Your task to perform on an android device: Go to privacy settings Image 0: 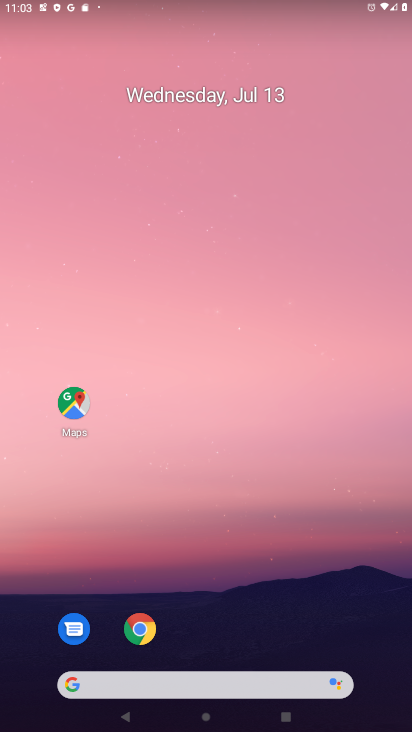
Step 0: drag from (261, 608) to (286, 158)
Your task to perform on an android device: Go to privacy settings Image 1: 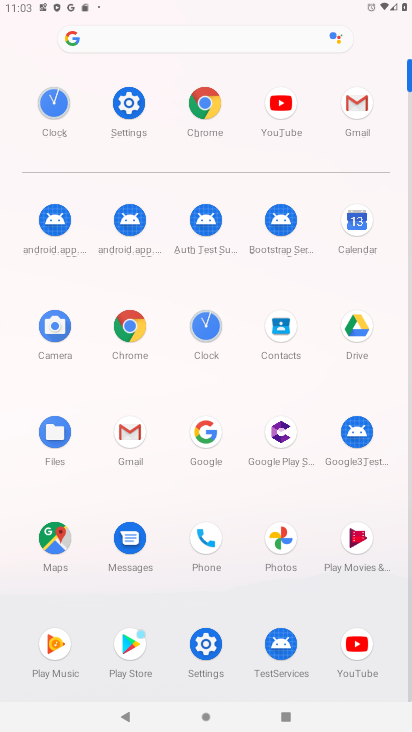
Step 1: click (120, 99)
Your task to perform on an android device: Go to privacy settings Image 2: 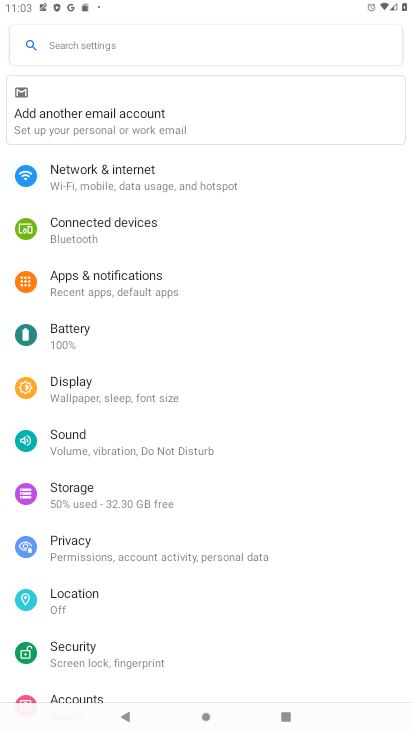
Step 2: click (104, 555)
Your task to perform on an android device: Go to privacy settings Image 3: 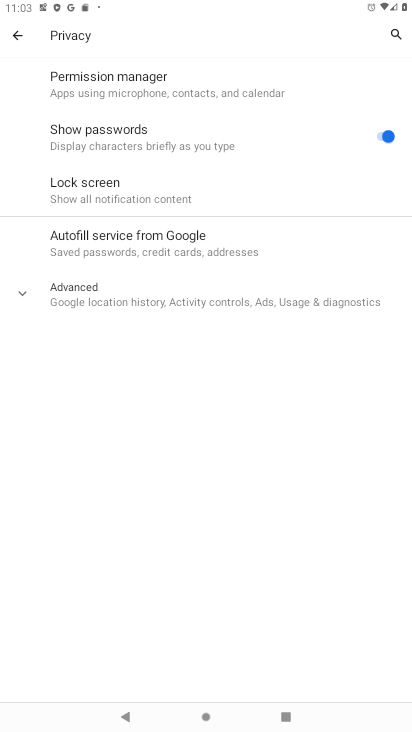
Step 3: task complete